Your task to perform on an android device: Search for the new Steph Curry shoes on Nike.com Image 0: 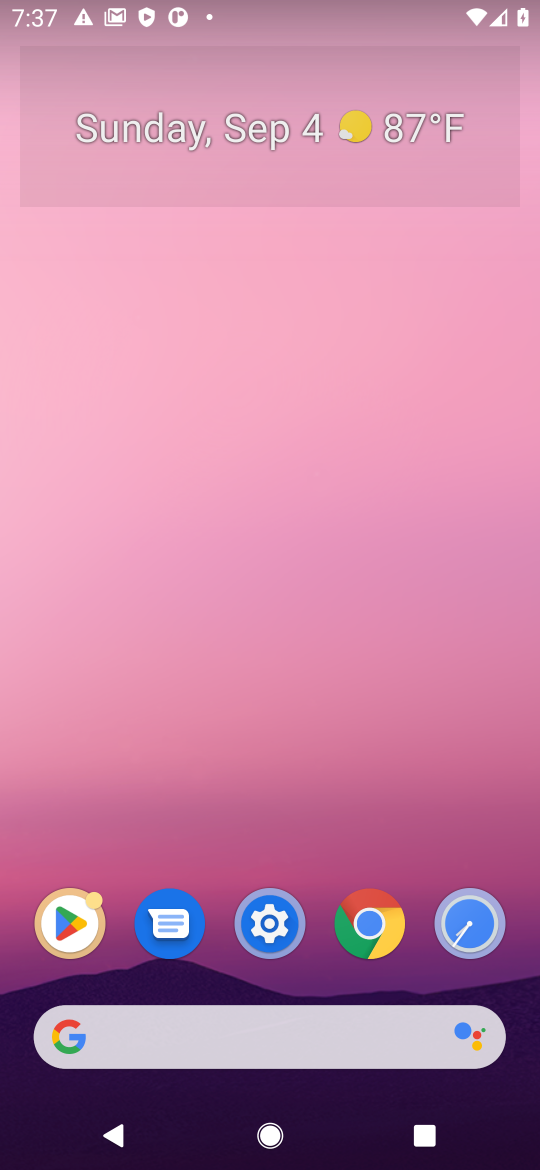
Step 0: press home button
Your task to perform on an android device: Search for the new Steph Curry shoes on Nike.com Image 1: 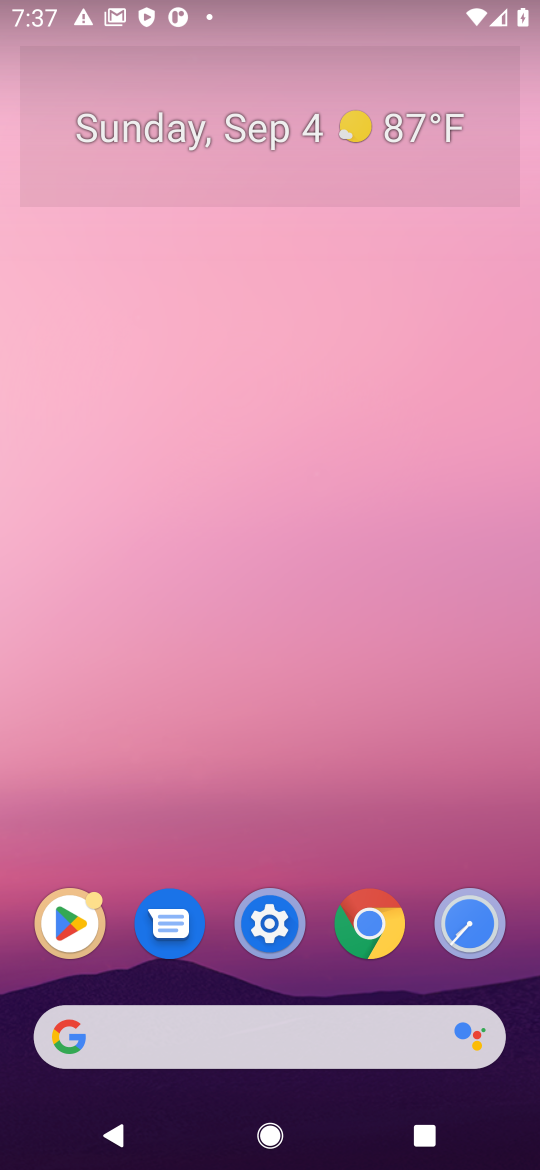
Step 1: click (409, 1040)
Your task to perform on an android device: Search for the new Steph Curry shoes on Nike.com Image 2: 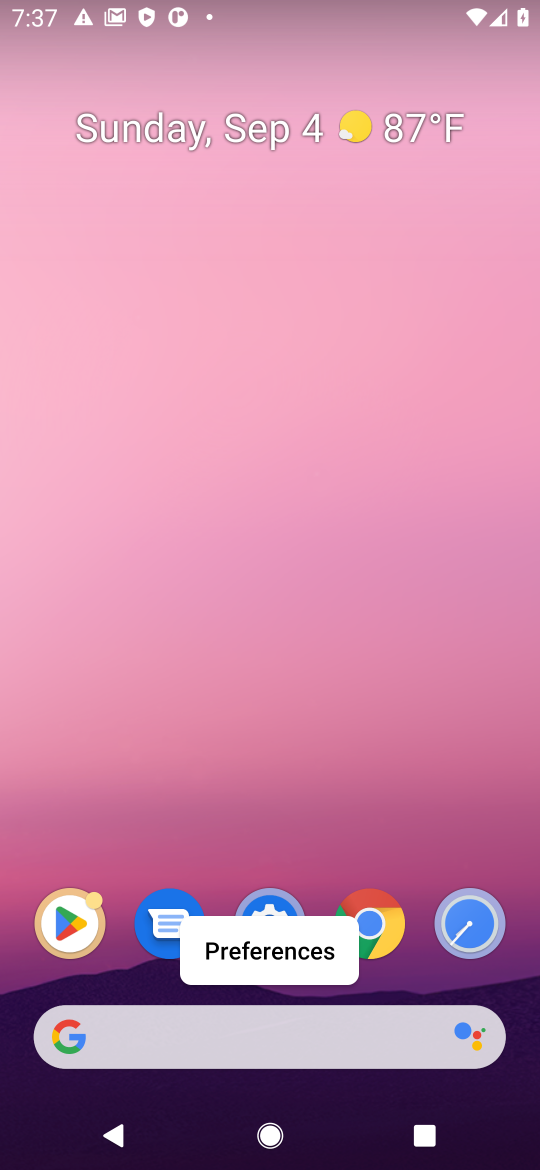
Step 2: click (409, 1040)
Your task to perform on an android device: Search for the new Steph Curry shoes on Nike.com Image 3: 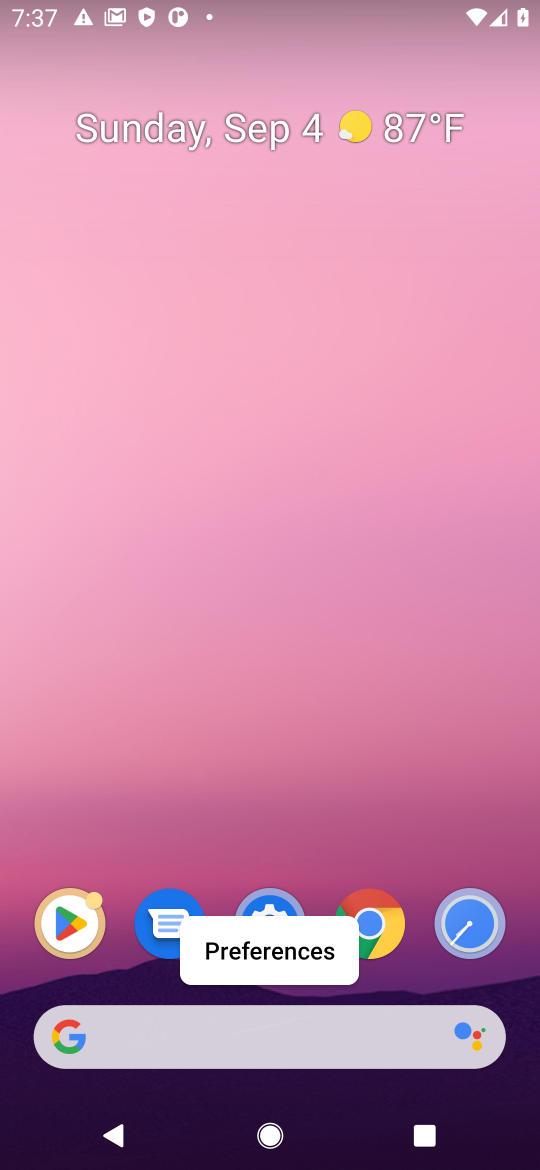
Step 3: click (396, 1033)
Your task to perform on an android device: Search for the new Steph Curry shoes on Nike.com Image 4: 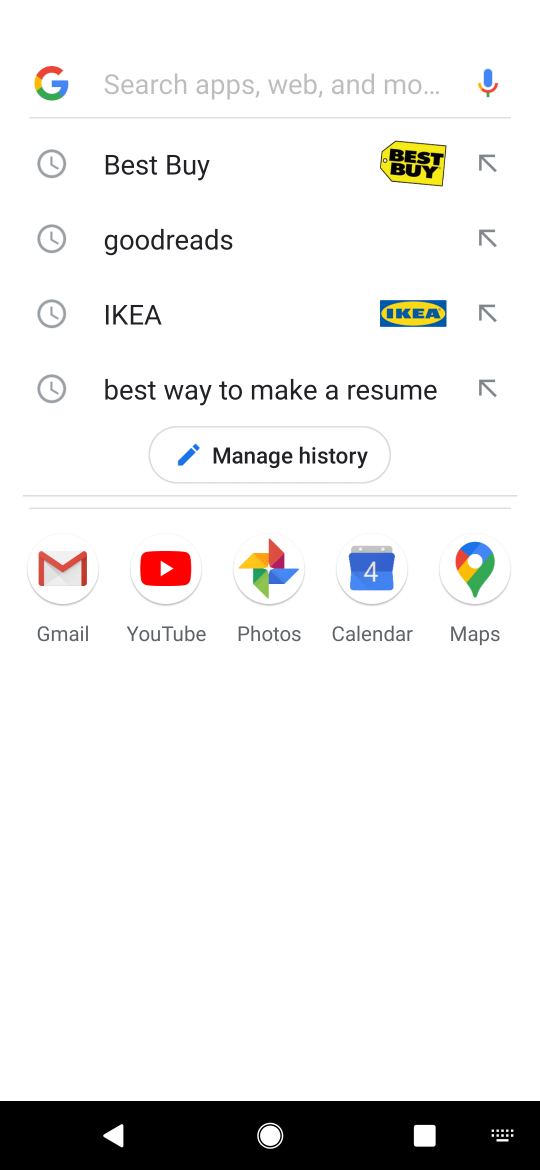
Step 4: press enter
Your task to perform on an android device: Search for the new Steph Curry shoes on Nike.com Image 5: 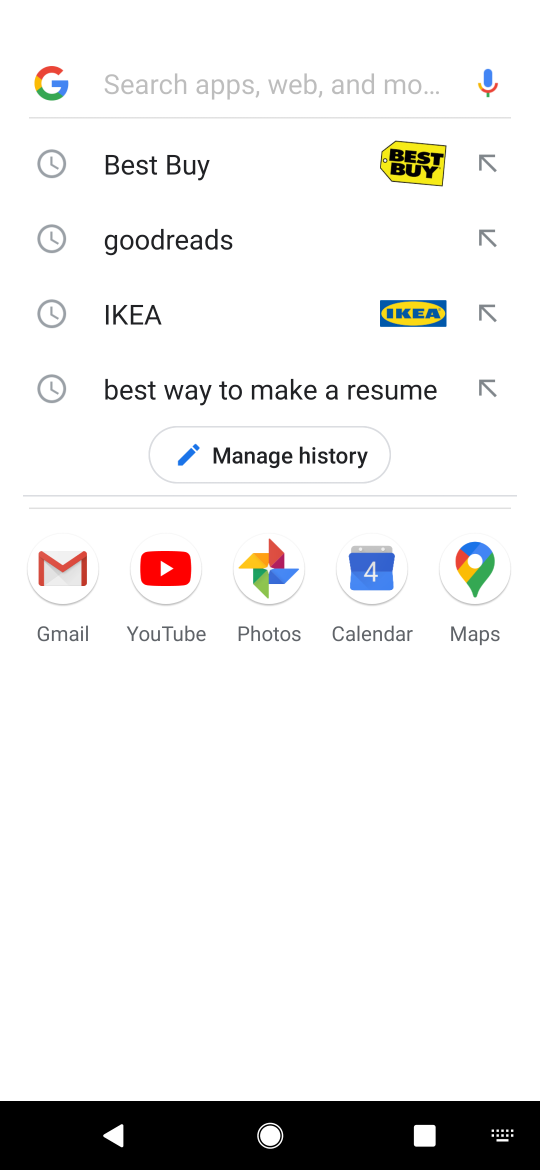
Step 5: type "nike.com"
Your task to perform on an android device: Search for the new Steph Curry shoes on Nike.com Image 6: 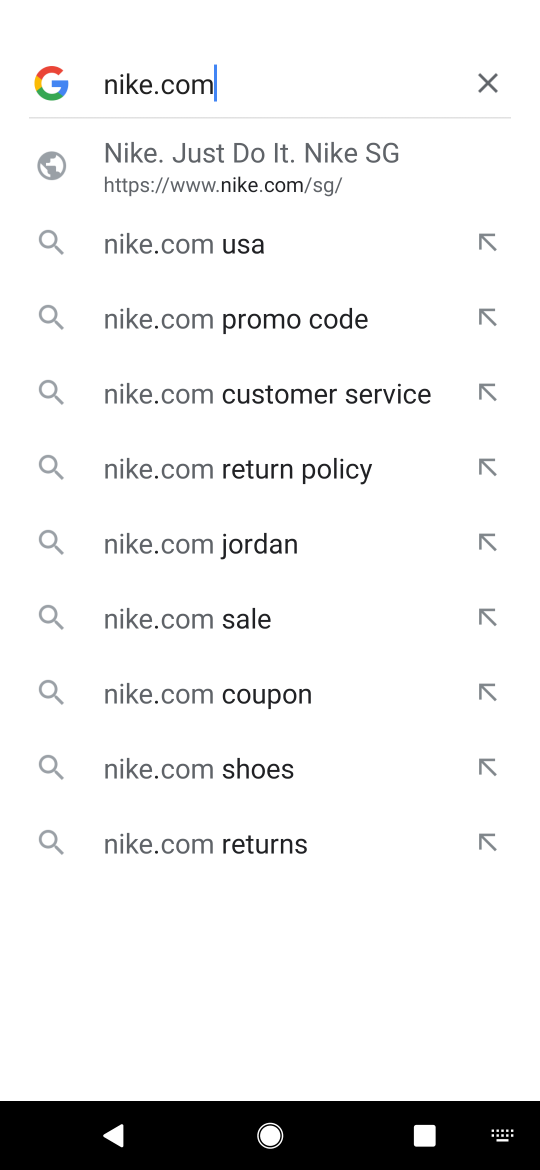
Step 6: click (301, 169)
Your task to perform on an android device: Search for the new Steph Curry shoes on Nike.com Image 7: 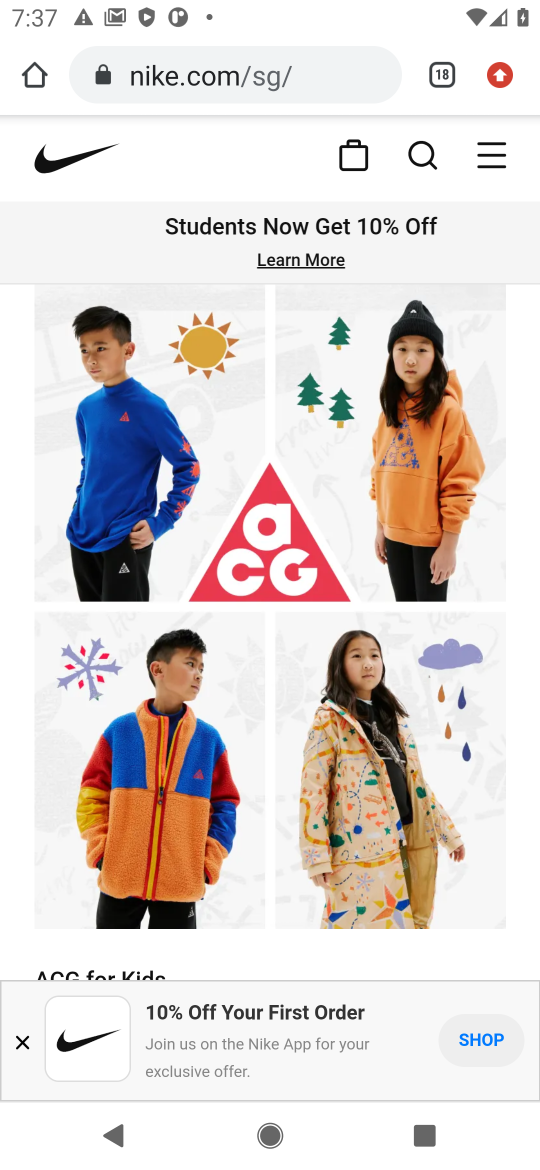
Step 7: click (421, 146)
Your task to perform on an android device: Search for the new Steph Curry shoes on Nike.com Image 8: 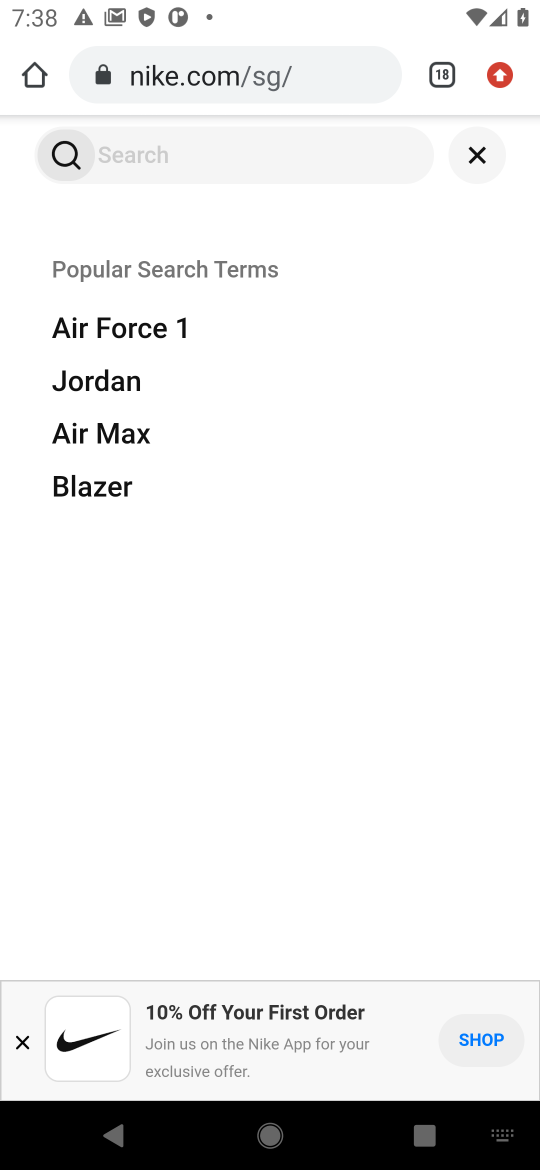
Step 8: press enter
Your task to perform on an android device: Search for the new Steph Curry shoes on Nike.com Image 9: 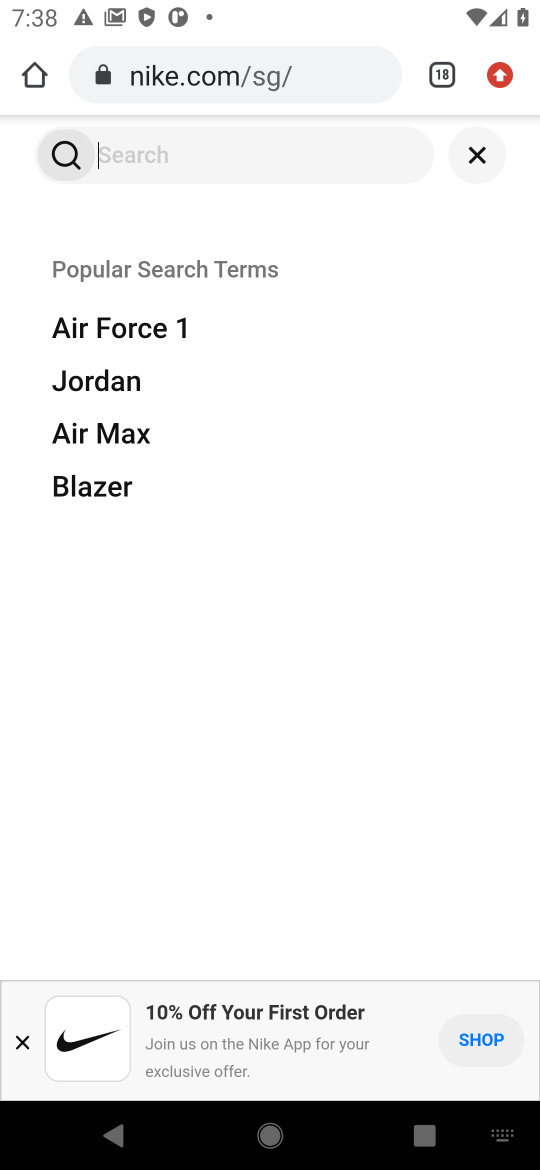
Step 9: type "steph curry shoes"
Your task to perform on an android device: Search for the new Steph Curry shoes on Nike.com Image 10: 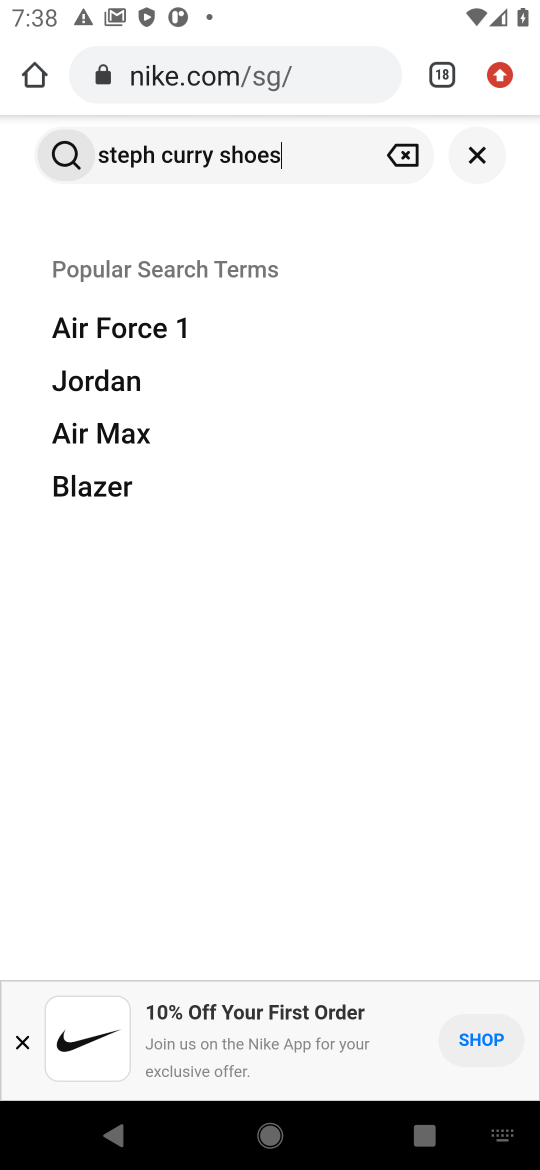
Step 10: click (62, 159)
Your task to perform on an android device: Search for the new Steph Curry shoes on Nike.com Image 11: 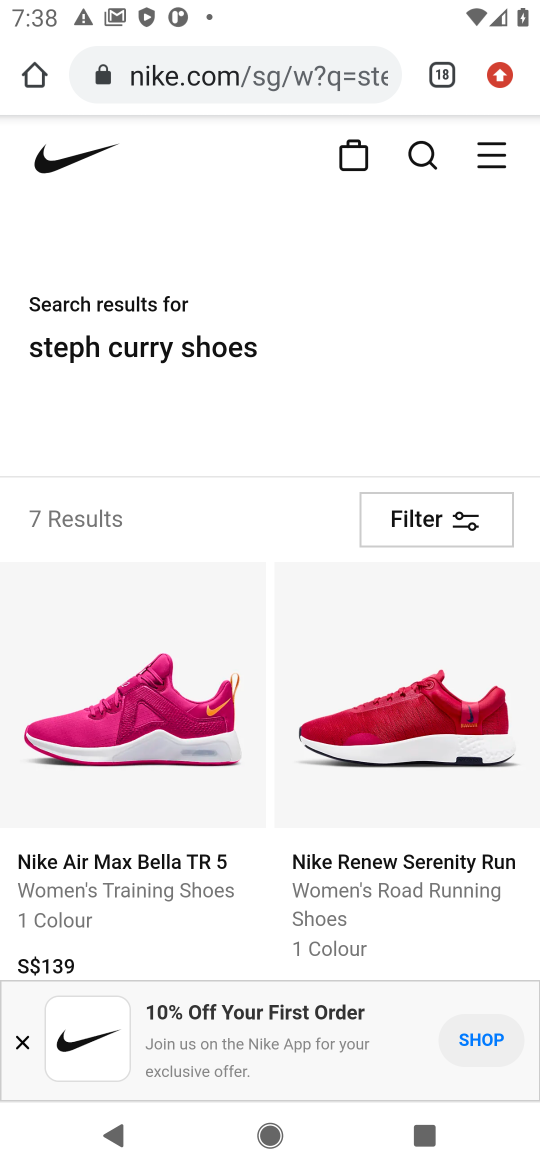
Step 11: task complete